Your task to perform on an android device: open sync settings in chrome Image 0: 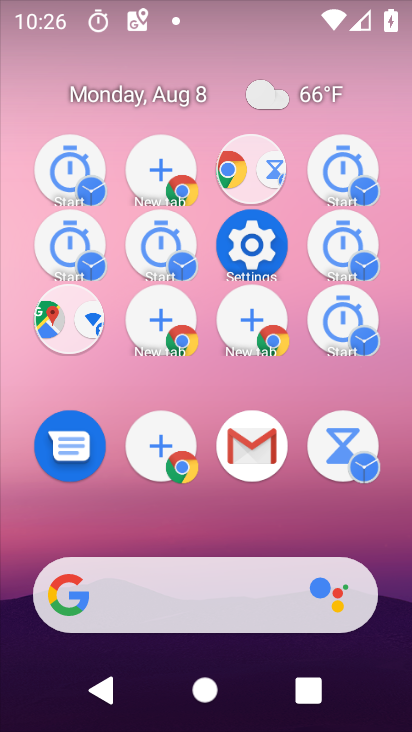
Step 0: drag from (238, 628) to (242, 259)
Your task to perform on an android device: open sync settings in chrome Image 1: 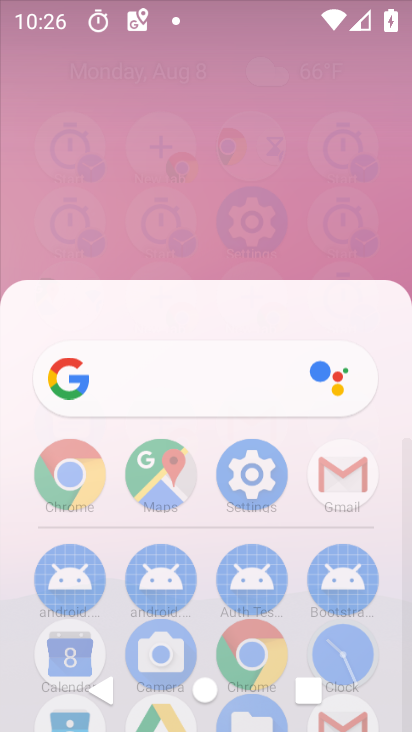
Step 1: drag from (248, 446) to (234, 230)
Your task to perform on an android device: open sync settings in chrome Image 2: 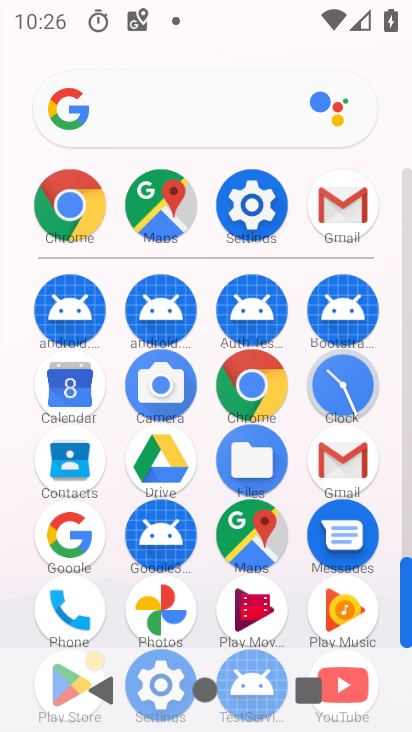
Step 2: click (259, 180)
Your task to perform on an android device: open sync settings in chrome Image 3: 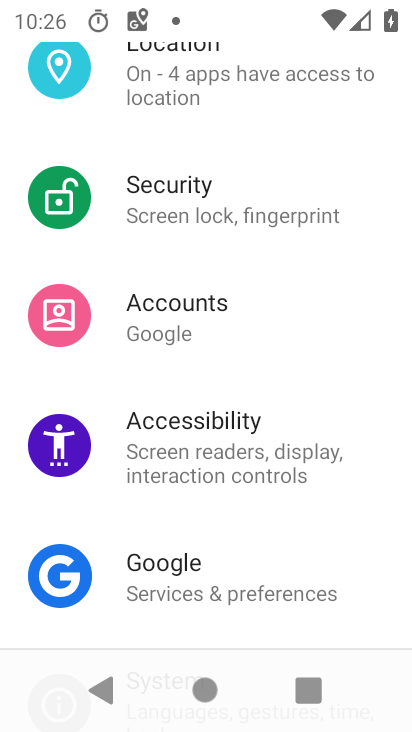
Step 3: drag from (228, 481) to (208, 199)
Your task to perform on an android device: open sync settings in chrome Image 4: 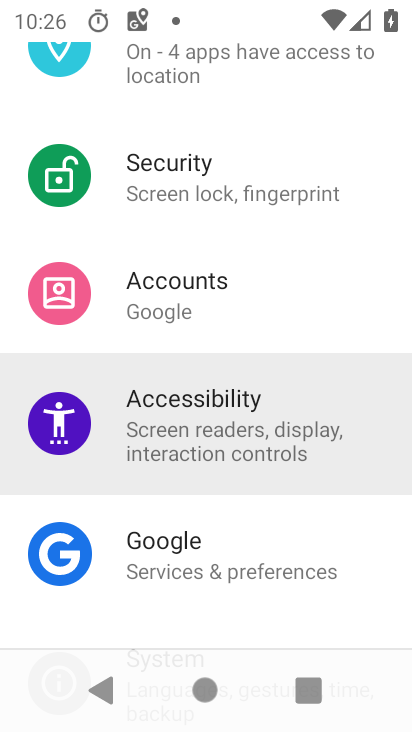
Step 4: drag from (205, 460) to (181, 212)
Your task to perform on an android device: open sync settings in chrome Image 5: 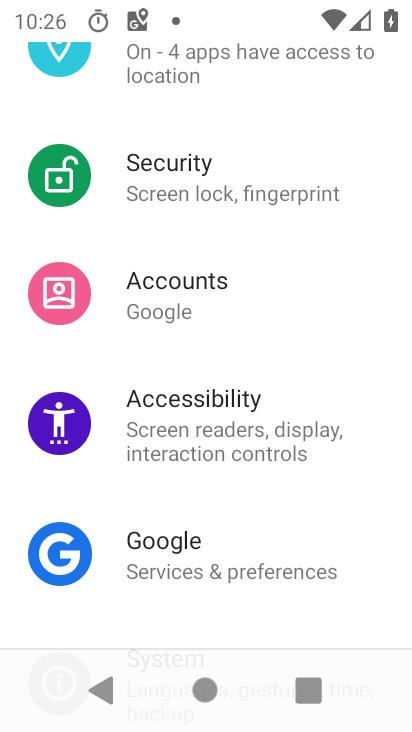
Step 5: press back button
Your task to perform on an android device: open sync settings in chrome Image 6: 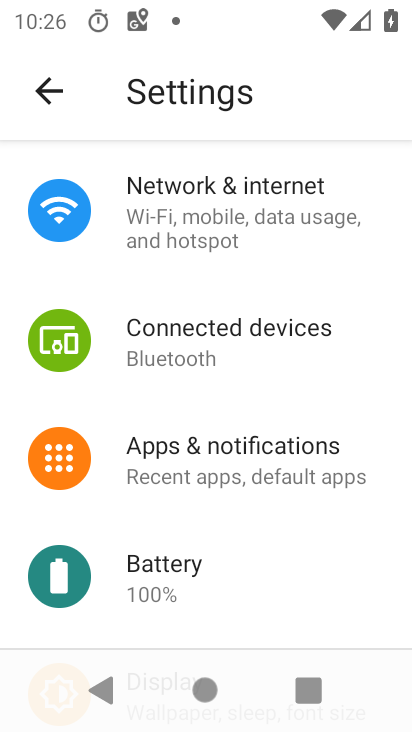
Step 6: press back button
Your task to perform on an android device: open sync settings in chrome Image 7: 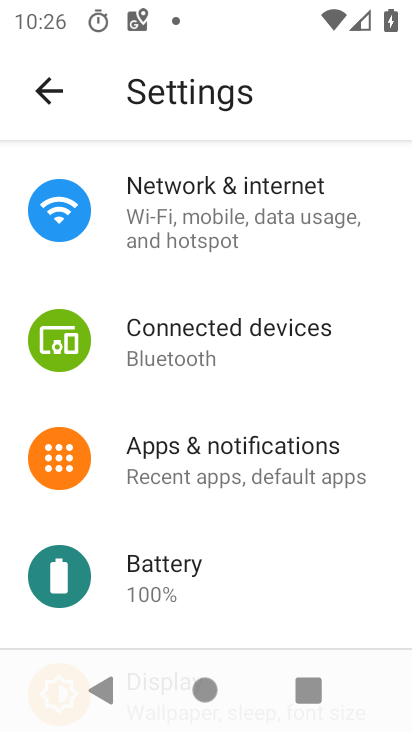
Step 7: press back button
Your task to perform on an android device: open sync settings in chrome Image 8: 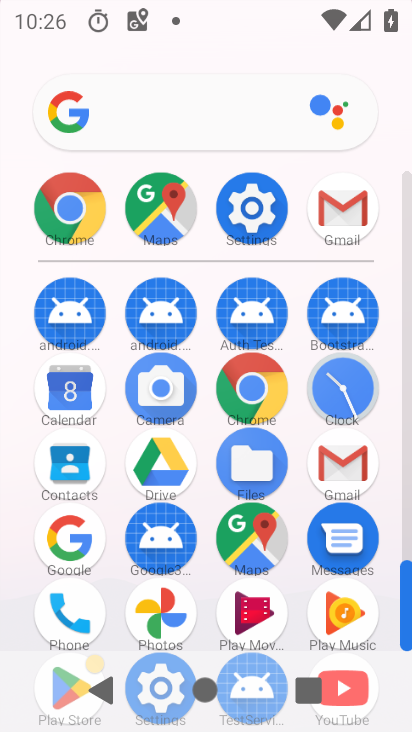
Step 8: press home button
Your task to perform on an android device: open sync settings in chrome Image 9: 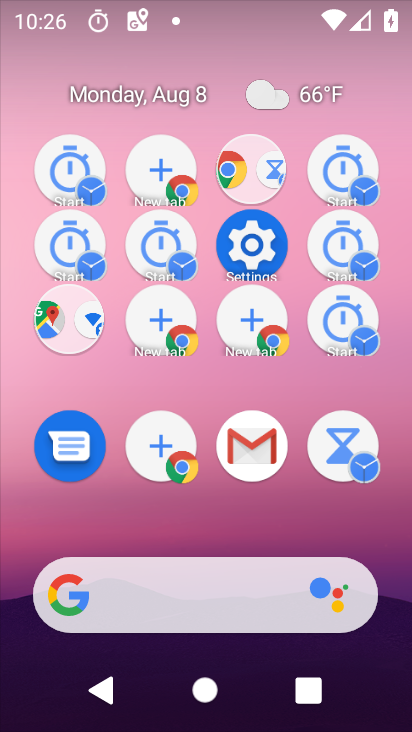
Step 9: press home button
Your task to perform on an android device: open sync settings in chrome Image 10: 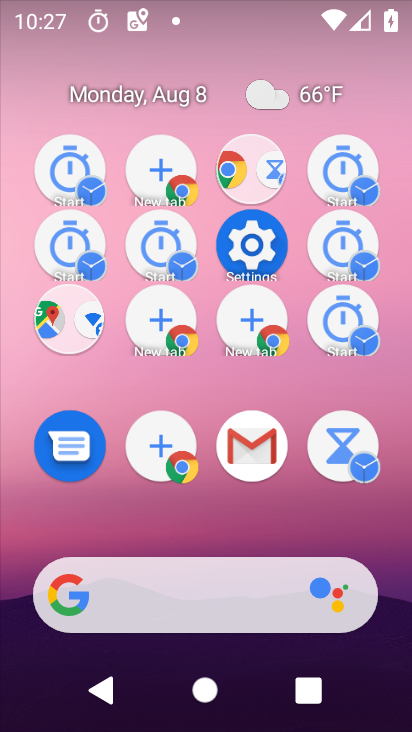
Step 10: drag from (230, 253) to (217, 108)
Your task to perform on an android device: open sync settings in chrome Image 11: 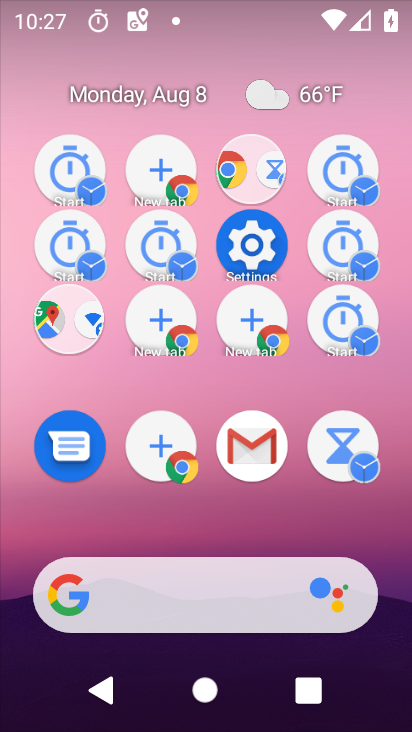
Step 11: click (156, 182)
Your task to perform on an android device: open sync settings in chrome Image 12: 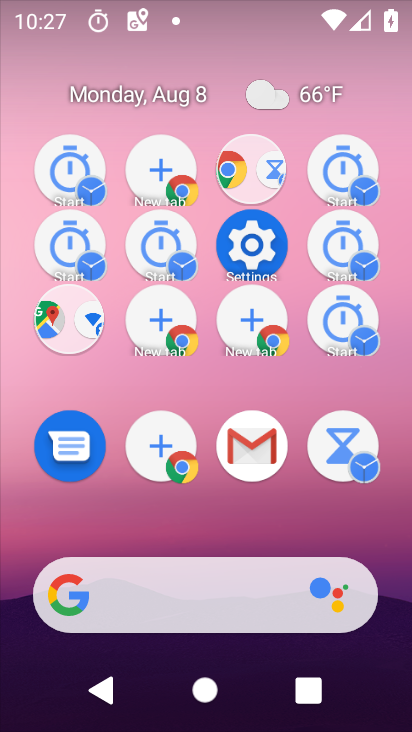
Step 12: drag from (222, 486) to (233, 135)
Your task to perform on an android device: open sync settings in chrome Image 13: 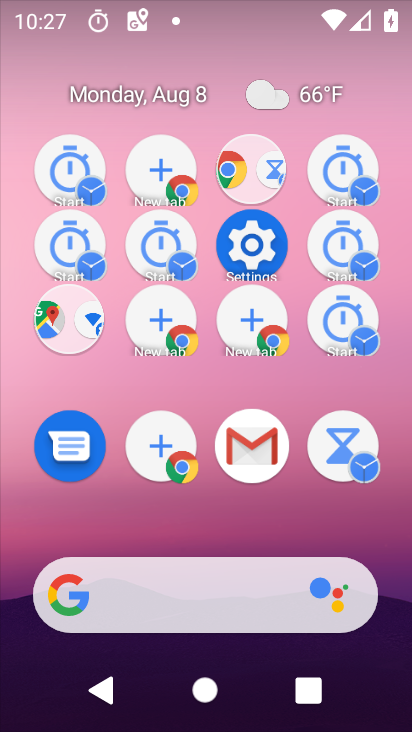
Step 13: drag from (254, 524) to (252, 215)
Your task to perform on an android device: open sync settings in chrome Image 14: 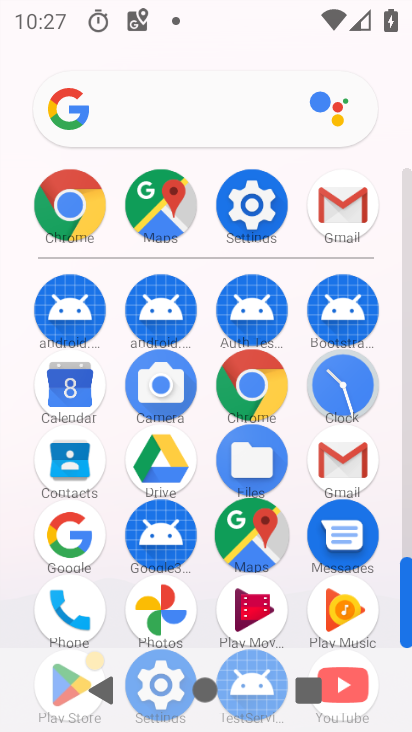
Step 14: drag from (212, 441) to (212, 258)
Your task to perform on an android device: open sync settings in chrome Image 15: 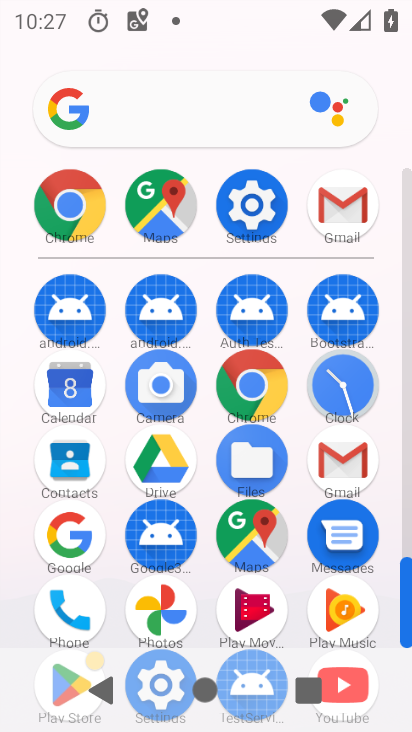
Step 15: click (76, 198)
Your task to perform on an android device: open sync settings in chrome Image 16: 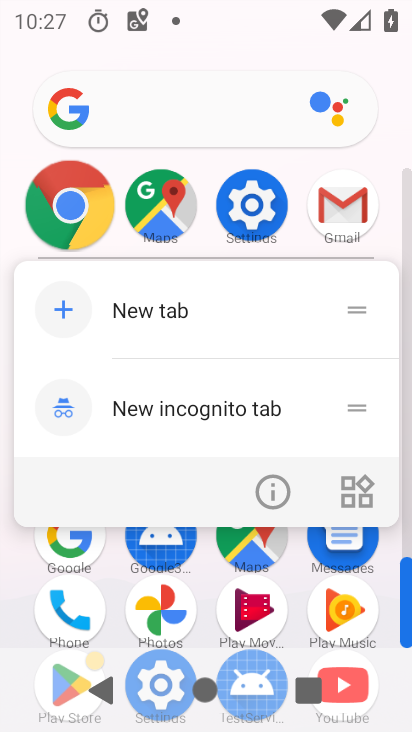
Step 16: click (68, 205)
Your task to perform on an android device: open sync settings in chrome Image 17: 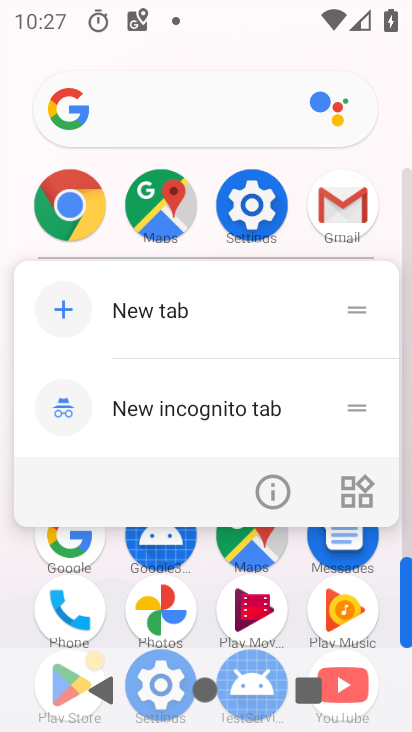
Step 17: click (68, 205)
Your task to perform on an android device: open sync settings in chrome Image 18: 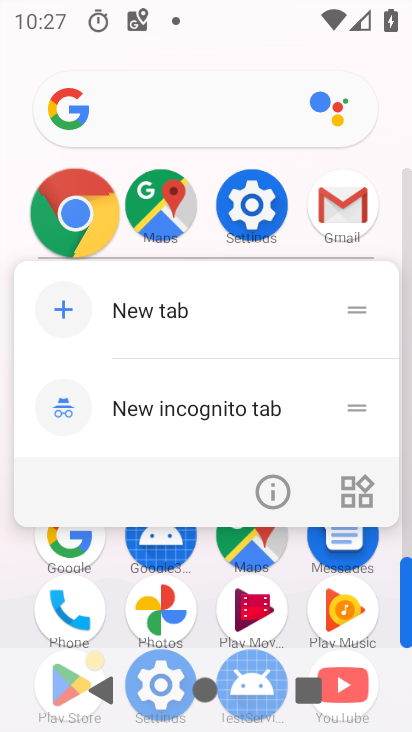
Step 18: click (73, 215)
Your task to perform on an android device: open sync settings in chrome Image 19: 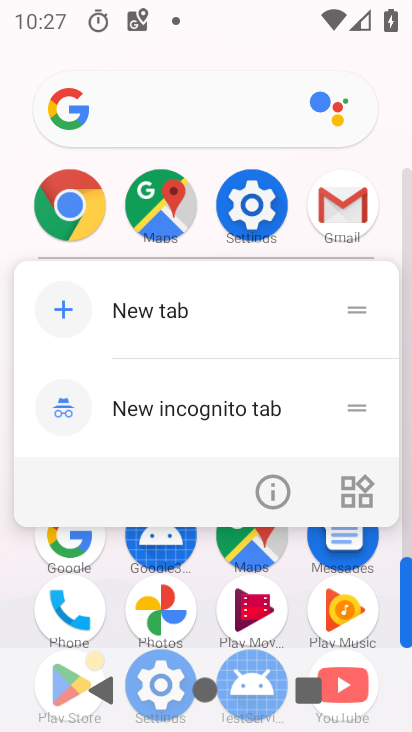
Step 19: click (95, 226)
Your task to perform on an android device: open sync settings in chrome Image 20: 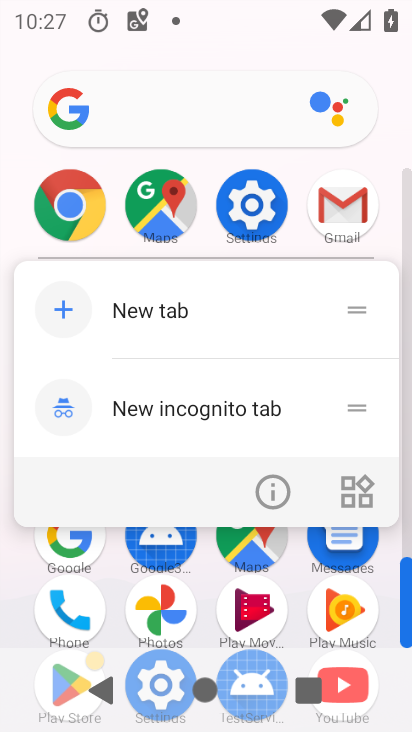
Step 20: click (90, 195)
Your task to perform on an android device: open sync settings in chrome Image 21: 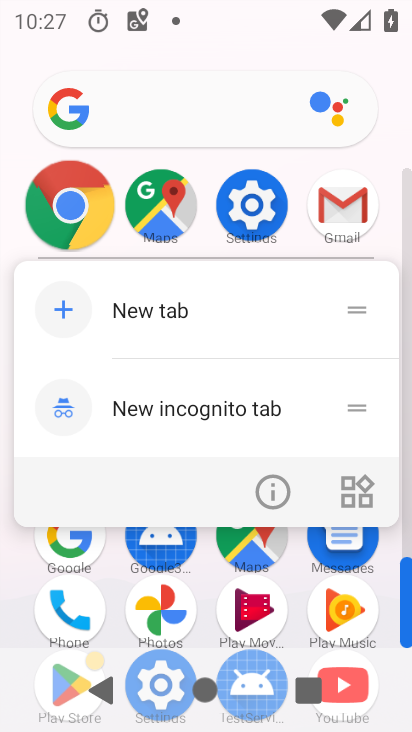
Step 21: click (64, 206)
Your task to perform on an android device: open sync settings in chrome Image 22: 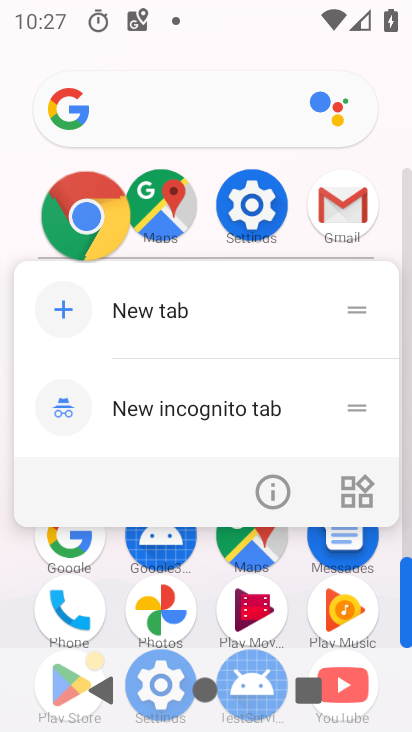
Step 22: click (79, 218)
Your task to perform on an android device: open sync settings in chrome Image 23: 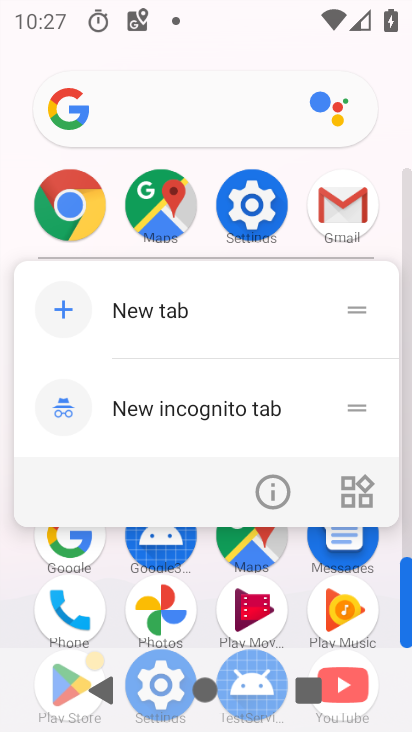
Step 23: click (79, 218)
Your task to perform on an android device: open sync settings in chrome Image 24: 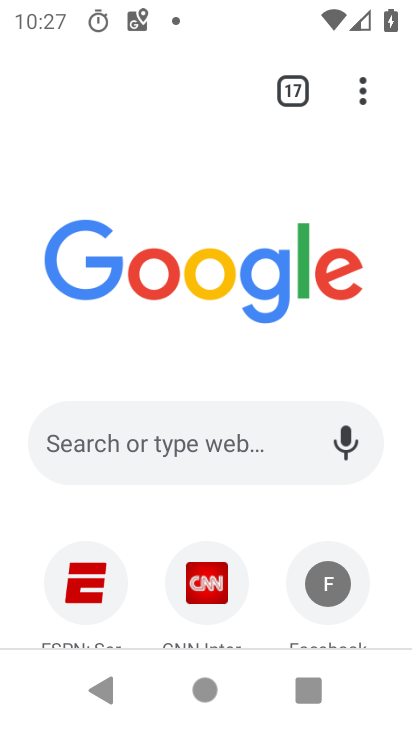
Step 24: drag from (361, 86) to (69, 469)
Your task to perform on an android device: open sync settings in chrome Image 25: 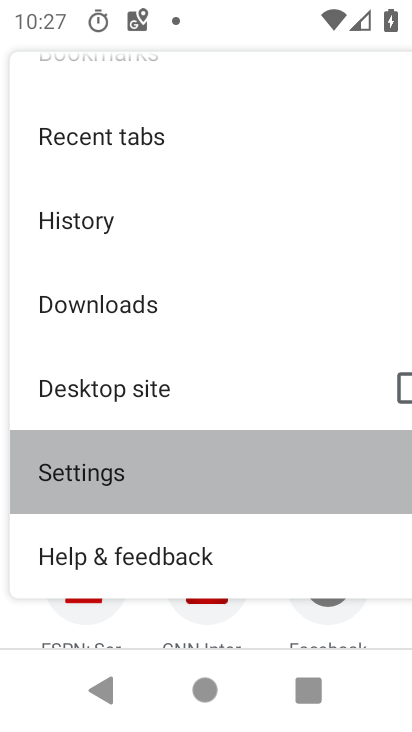
Step 25: click (70, 471)
Your task to perform on an android device: open sync settings in chrome Image 26: 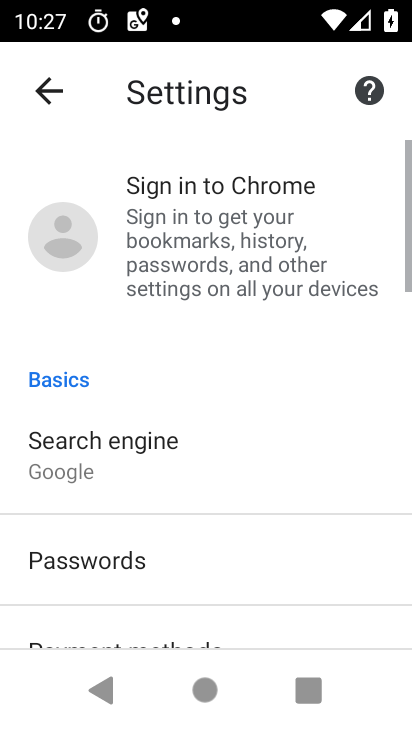
Step 26: drag from (193, 491) to (242, 200)
Your task to perform on an android device: open sync settings in chrome Image 27: 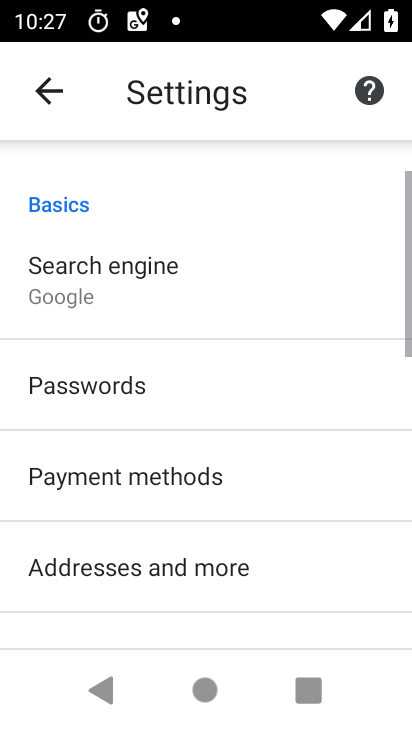
Step 27: drag from (228, 401) to (225, 163)
Your task to perform on an android device: open sync settings in chrome Image 28: 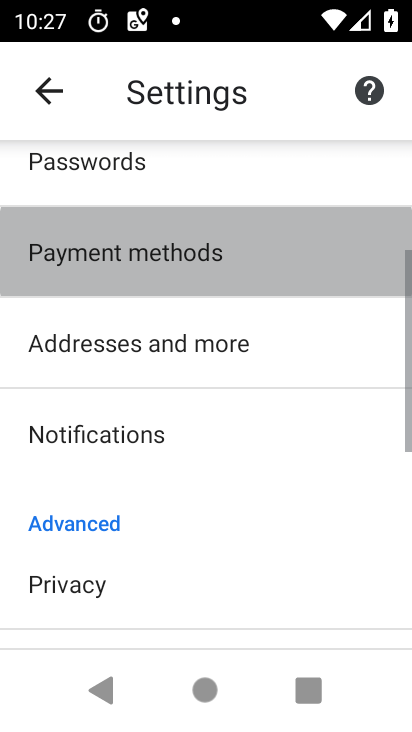
Step 28: drag from (191, 495) to (213, 148)
Your task to perform on an android device: open sync settings in chrome Image 29: 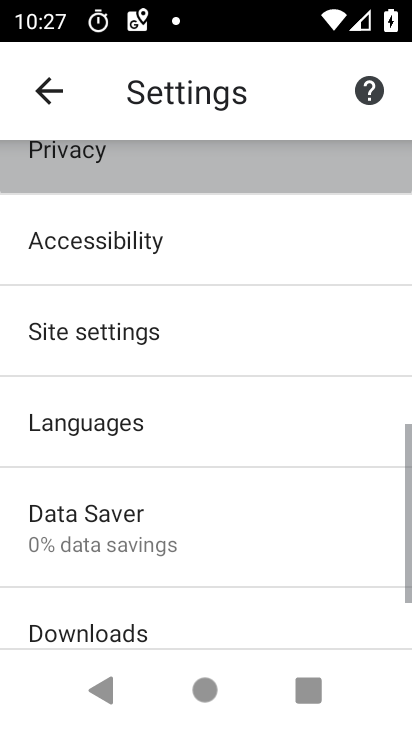
Step 29: drag from (213, 501) to (234, 127)
Your task to perform on an android device: open sync settings in chrome Image 30: 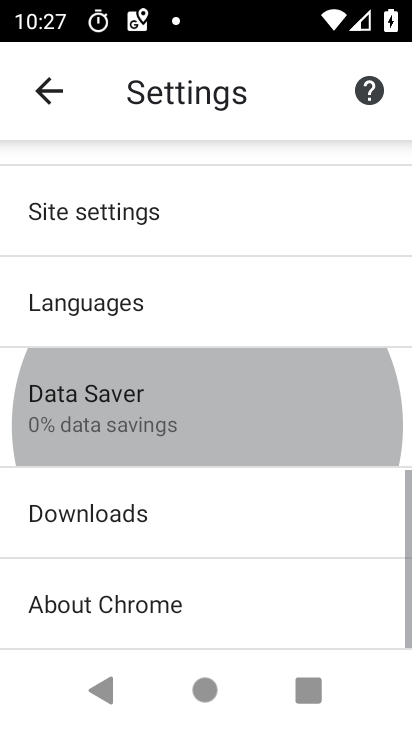
Step 30: drag from (239, 468) to (239, 250)
Your task to perform on an android device: open sync settings in chrome Image 31: 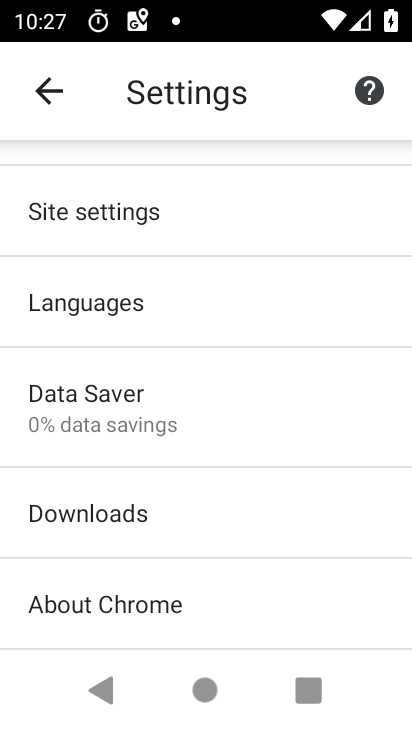
Step 31: click (86, 202)
Your task to perform on an android device: open sync settings in chrome Image 32: 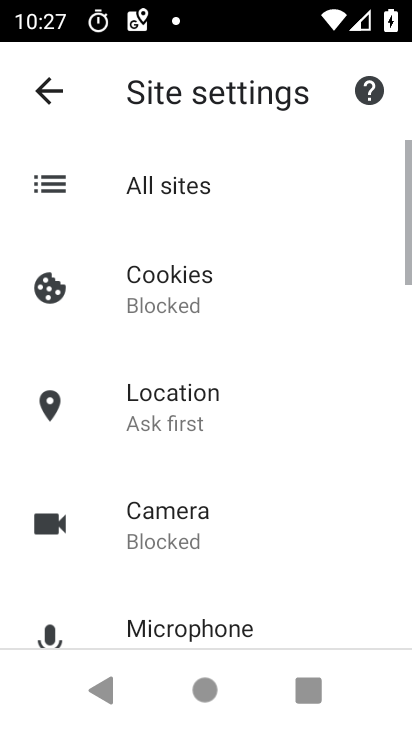
Step 32: drag from (185, 586) to (145, 262)
Your task to perform on an android device: open sync settings in chrome Image 33: 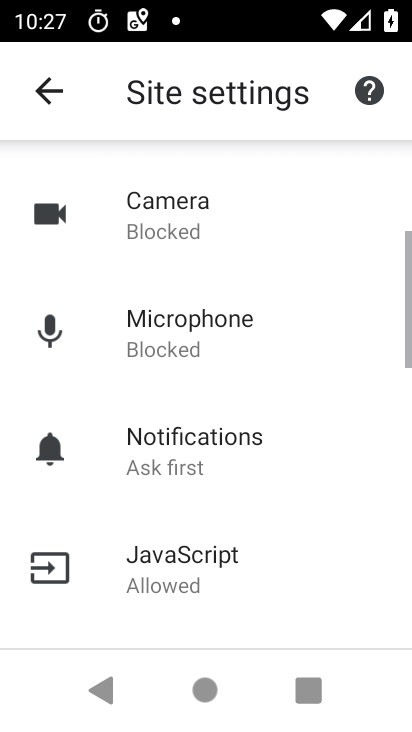
Step 33: drag from (187, 443) to (151, 235)
Your task to perform on an android device: open sync settings in chrome Image 34: 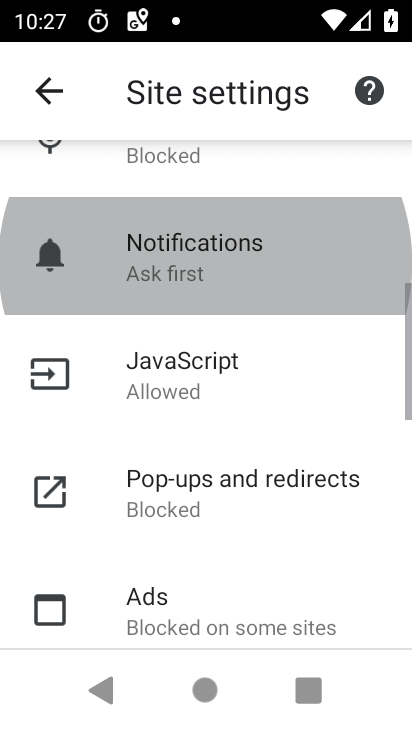
Step 34: click (223, 255)
Your task to perform on an android device: open sync settings in chrome Image 35: 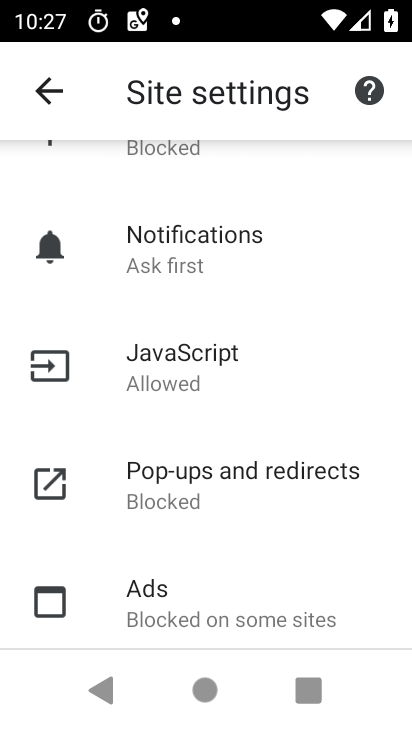
Step 35: drag from (321, 222) to (323, 179)
Your task to perform on an android device: open sync settings in chrome Image 36: 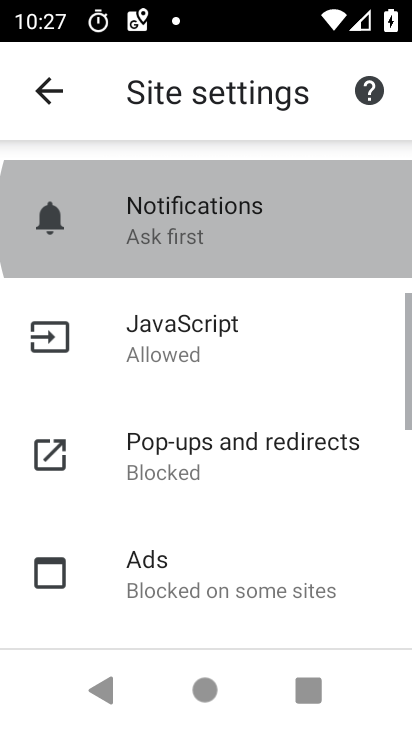
Step 36: drag from (257, 452) to (228, 216)
Your task to perform on an android device: open sync settings in chrome Image 37: 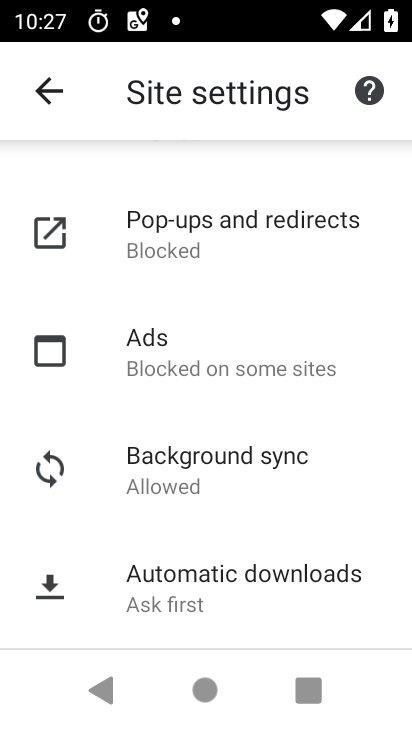
Step 37: click (156, 482)
Your task to perform on an android device: open sync settings in chrome Image 38: 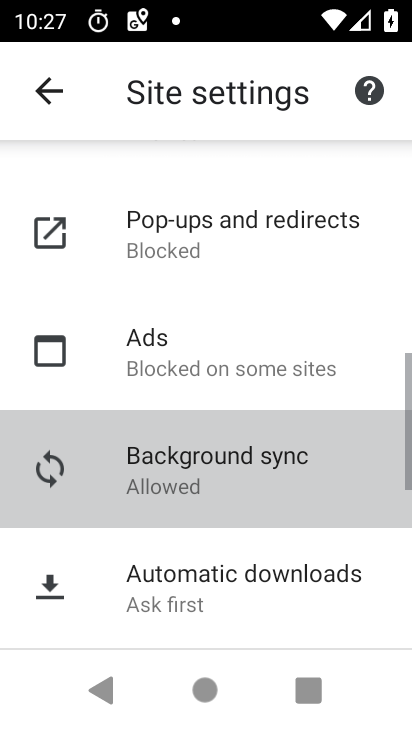
Step 38: click (158, 488)
Your task to perform on an android device: open sync settings in chrome Image 39: 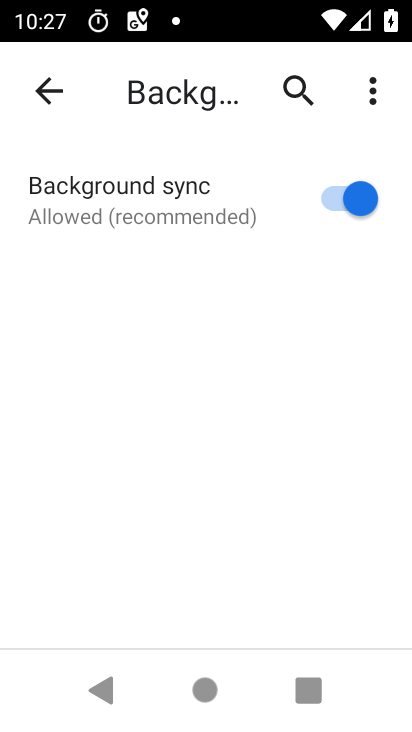
Step 39: task complete